Your task to perform on an android device: Open the Play Movies app and select the watchlist tab. Image 0: 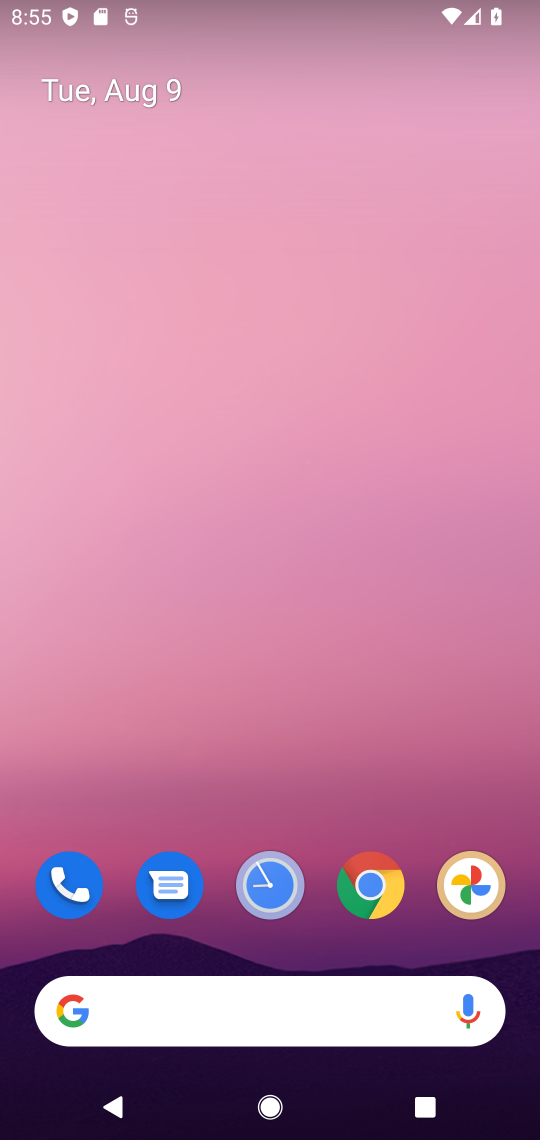
Step 0: drag from (334, 812) to (266, 49)
Your task to perform on an android device: Open the Play Movies app and select the watchlist tab. Image 1: 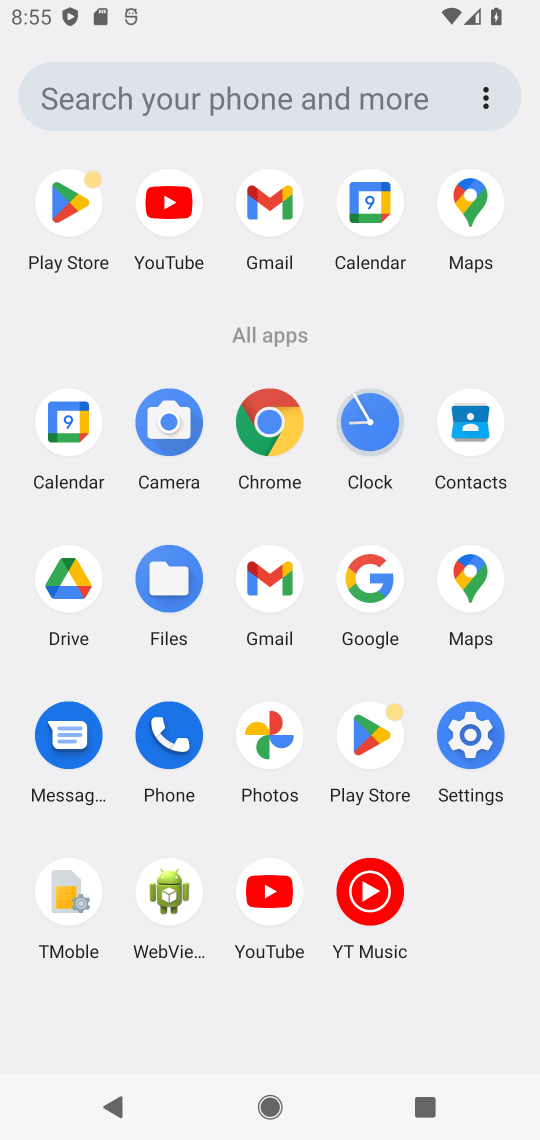
Step 1: task complete